Your task to perform on an android device: toggle javascript in the chrome app Image 0: 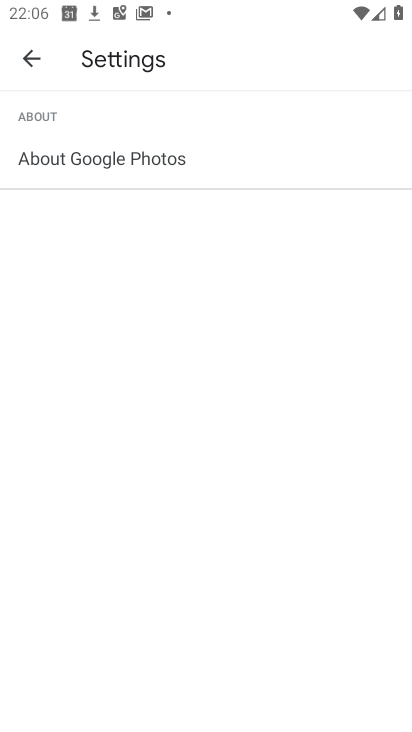
Step 0: press home button
Your task to perform on an android device: toggle javascript in the chrome app Image 1: 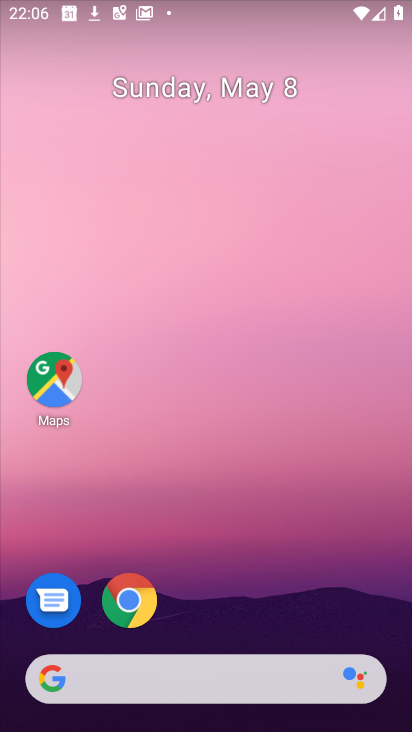
Step 1: drag from (214, 709) to (289, 213)
Your task to perform on an android device: toggle javascript in the chrome app Image 2: 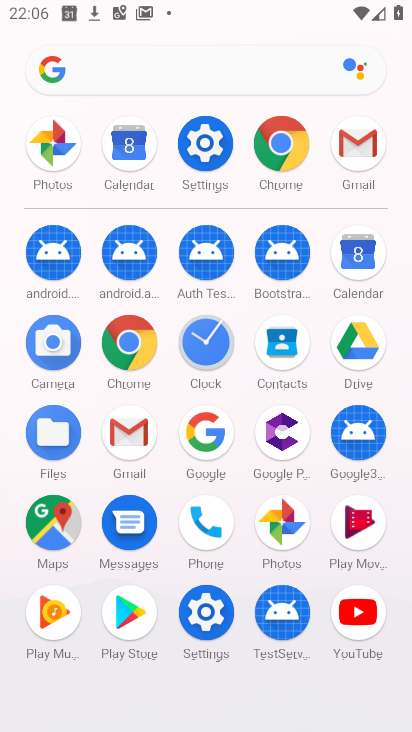
Step 2: click (285, 152)
Your task to perform on an android device: toggle javascript in the chrome app Image 3: 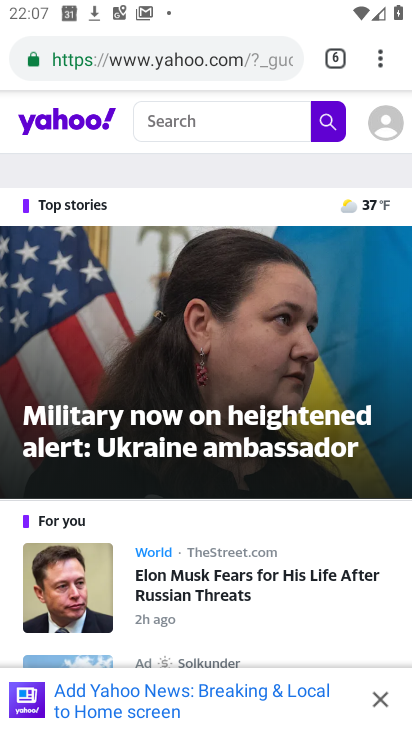
Step 3: click (381, 75)
Your task to perform on an android device: toggle javascript in the chrome app Image 4: 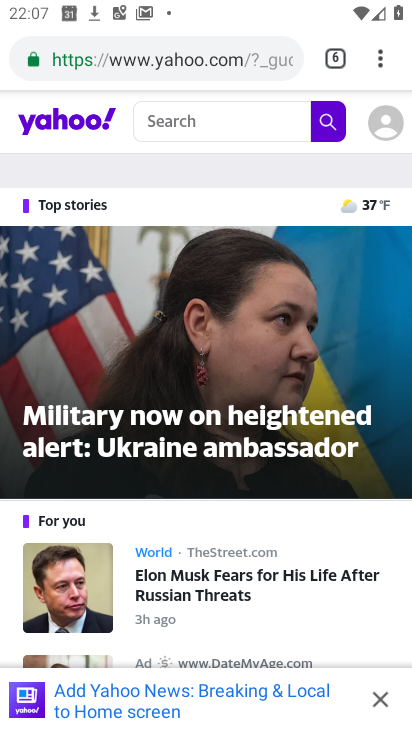
Step 4: click (376, 83)
Your task to perform on an android device: toggle javascript in the chrome app Image 5: 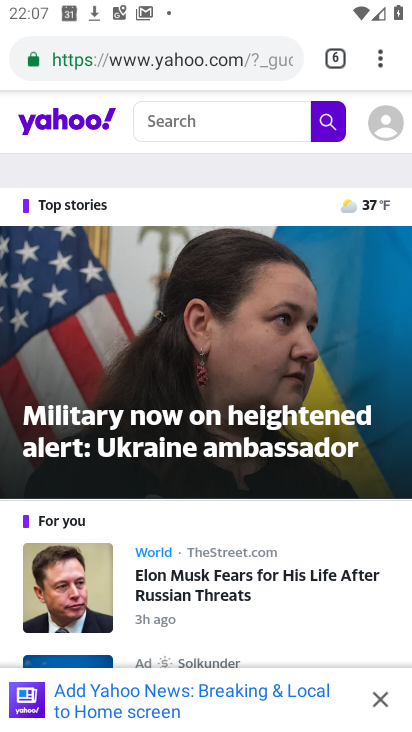
Step 5: click (382, 76)
Your task to perform on an android device: toggle javascript in the chrome app Image 6: 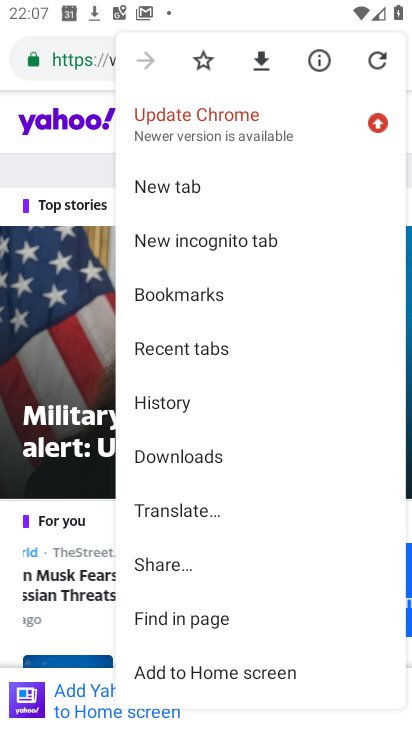
Step 6: drag from (183, 636) to (247, 441)
Your task to perform on an android device: toggle javascript in the chrome app Image 7: 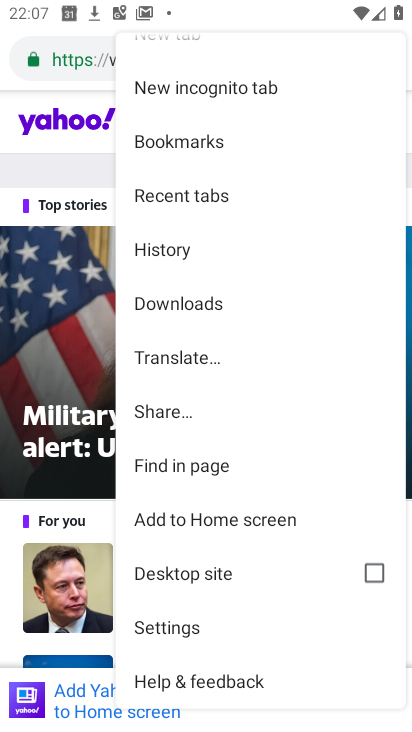
Step 7: click (180, 625)
Your task to perform on an android device: toggle javascript in the chrome app Image 8: 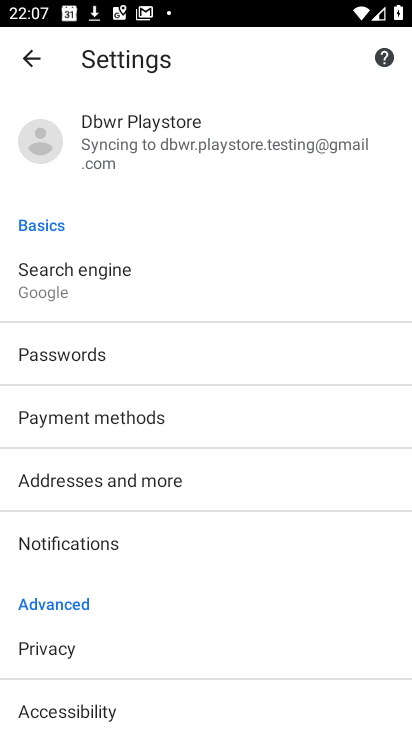
Step 8: drag from (179, 645) to (254, 390)
Your task to perform on an android device: toggle javascript in the chrome app Image 9: 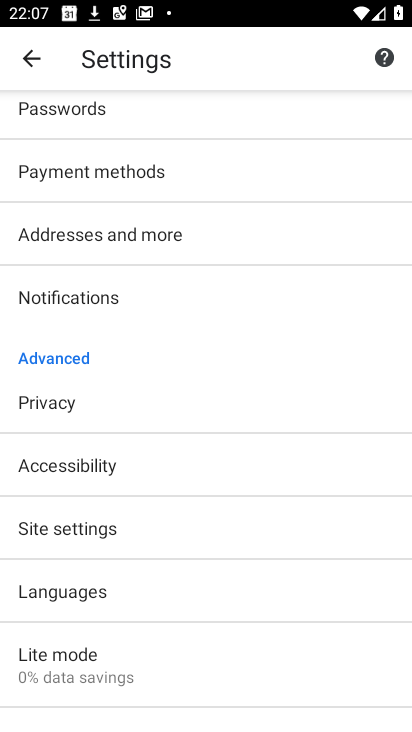
Step 9: click (102, 536)
Your task to perform on an android device: toggle javascript in the chrome app Image 10: 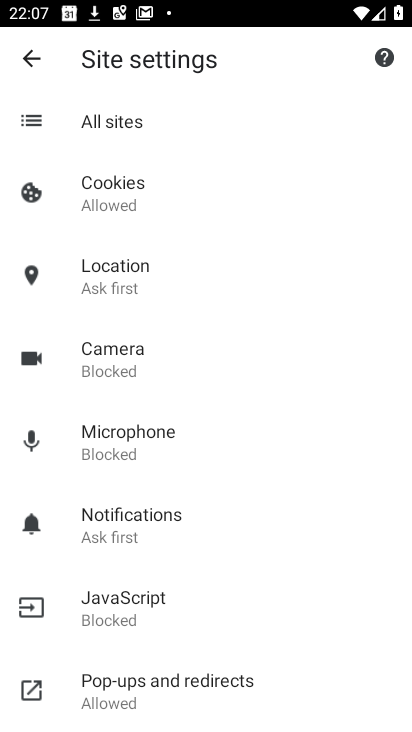
Step 10: click (98, 613)
Your task to perform on an android device: toggle javascript in the chrome app Image 11: 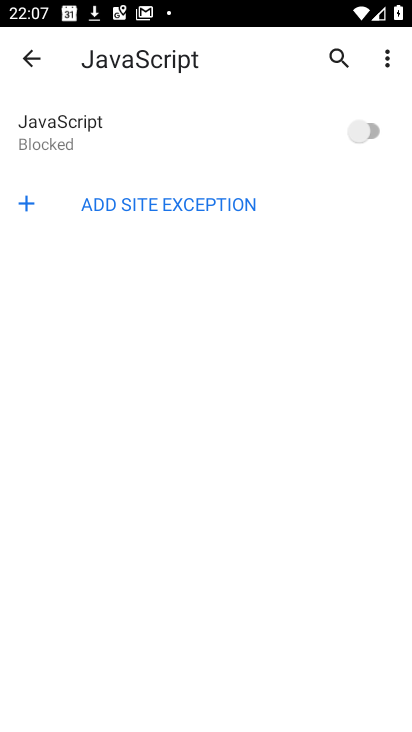
Step 11: click (359, 133)
Your task to perform on an android device: toggle javascript in the chrome app Image 12: 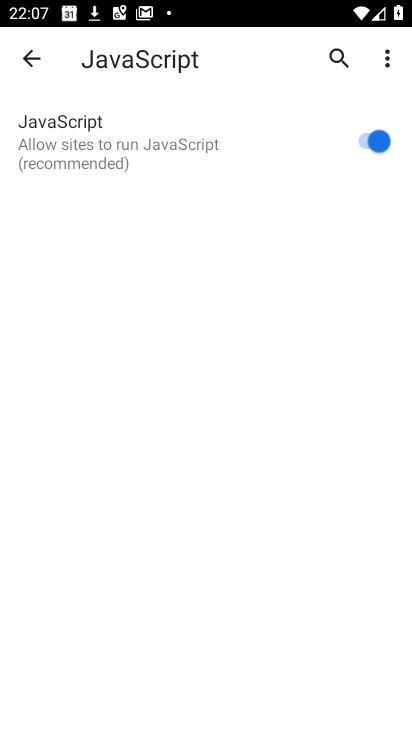
Step 12: task complete